Your task to perform on an android device: read, delete, or share a saved page in the chrome app Image 0: 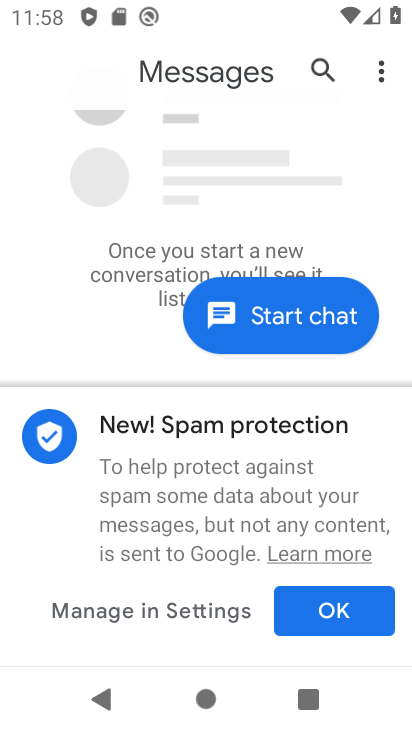
Step 0: drag from (235, 728) to (235, 200)
Your task to perform on an android device: read, delete, or share a saved page in the chrome app Image 1: 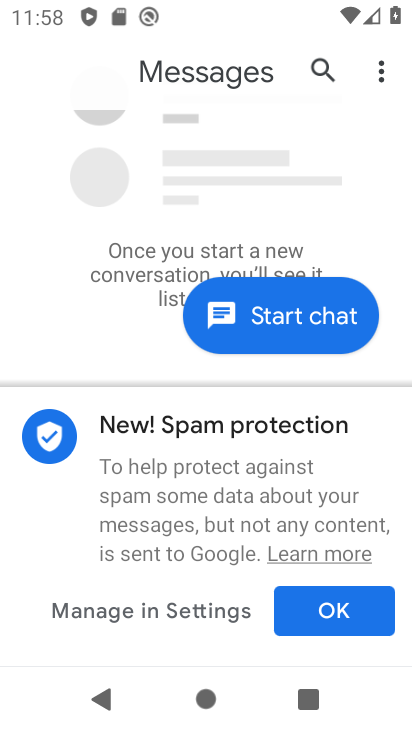
Step 1: press home button
Your task to perform on an android device: read, delete, or share a saved page in the chrome app Image 2: 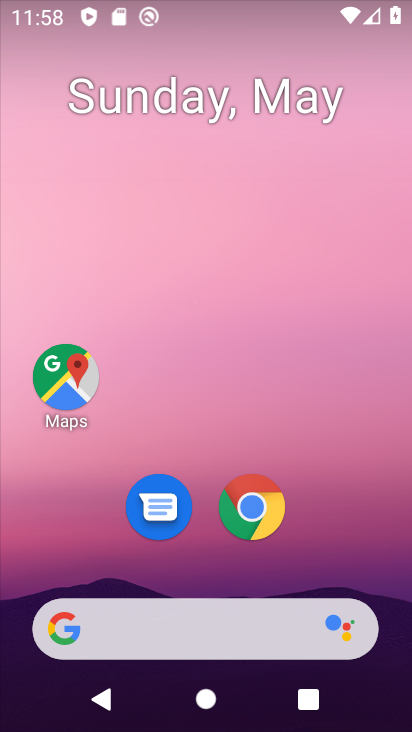
Step 2: click (252, 507)
Your task to perform on an android device: read, delete, or share a saved page in the chrome app Image 3: 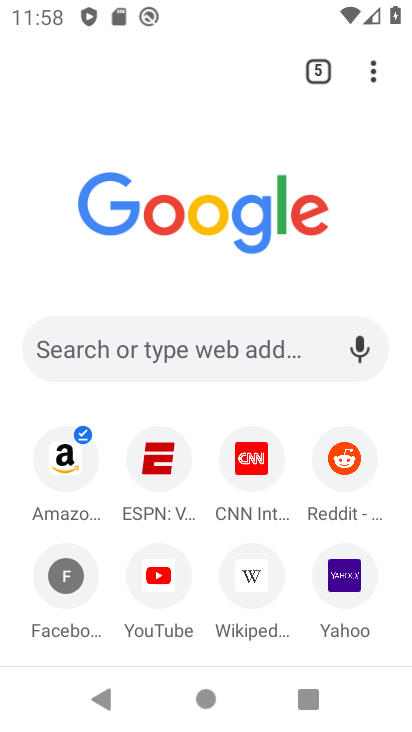
Step 3: click (374, 77)
Your task to perform on an android device: read, delete, or share a saved page in the chrome app Image 4: 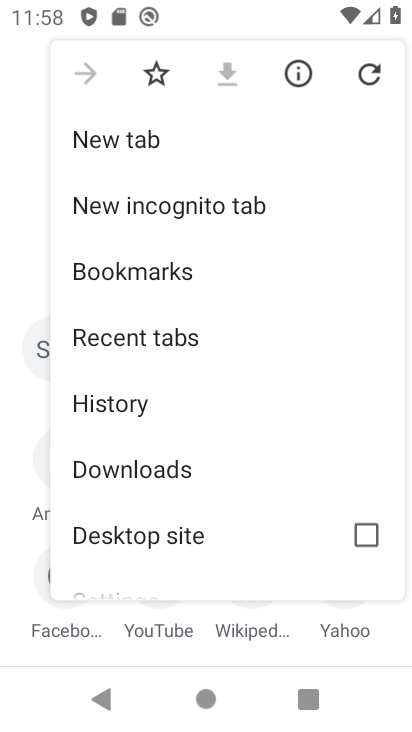
Step 4: drag from (133, 499) to (136, 145)
Your task to perform on an android device: read, delete, or share a saved page in the chrome app Image 5: 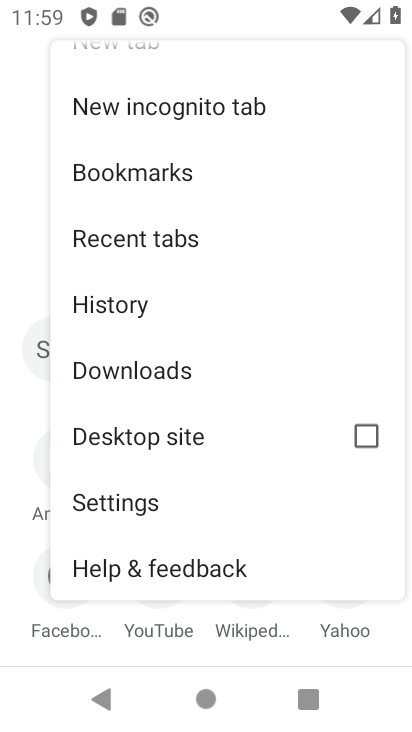
Step 5: click (113, 373)
Your task to perform on an android device: read, delete, or share a saved page in the chrome app Image 6: 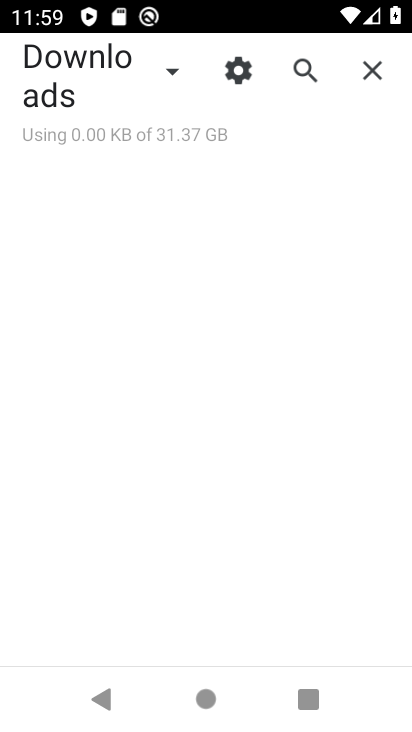
Step 6: click (168, 76)
Your task to perform on an android device: read, delete, or share a saved page in the chrome app Image 7: 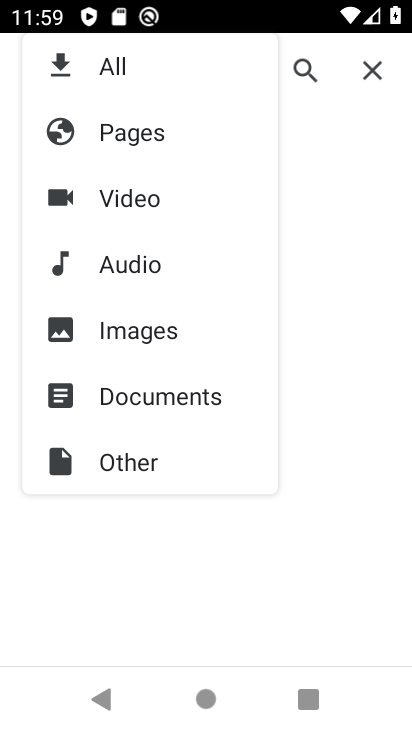
Step 7: click (135, 134)
Your task to perform on an android device: read, delete, or share a saved page in the chrome app Image 8: 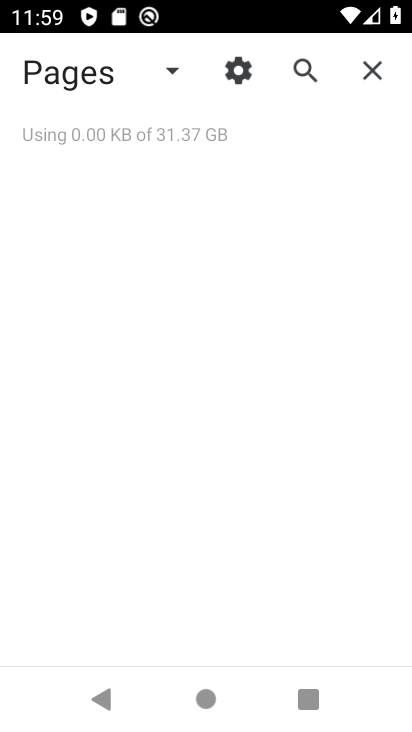
Step 8: task complete